Your task to perform on an android device: Turn off the flashlight Image 0: 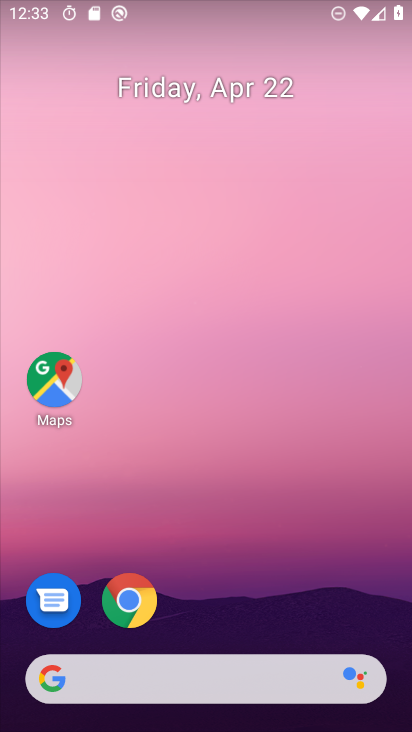
Step 0: drag from (219, 620) to (218, 47)
Your task to perform on an android device: Turn off the flashlight Image 1: 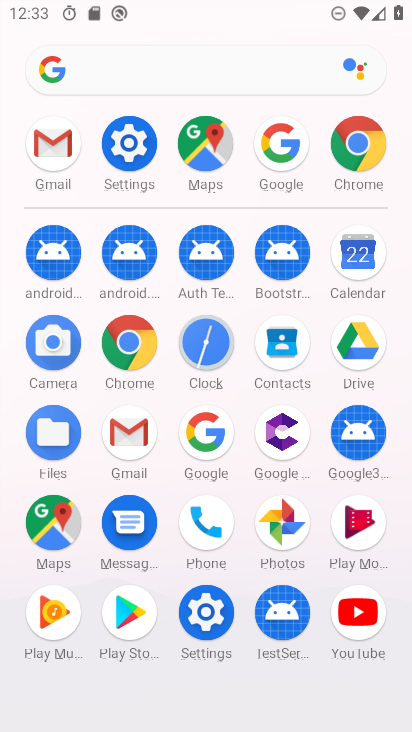
Step 1: click (129, 143)
Your task to perform on an android device: Turn off the flashlight Image 2: 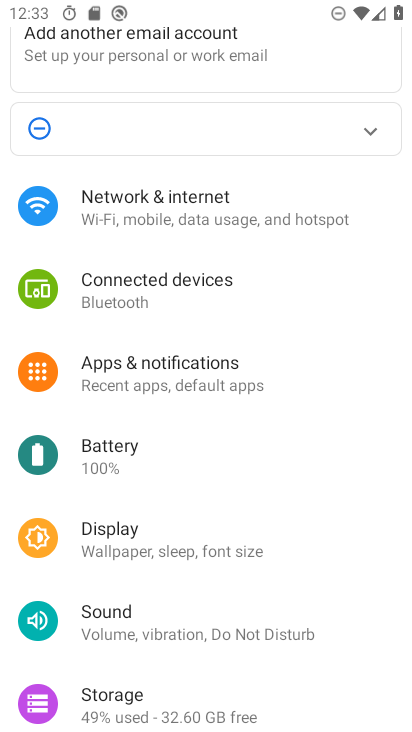
Step 2: click (209, 555)
Your task to perform on an android device: Turn off the flashlight Image 3: 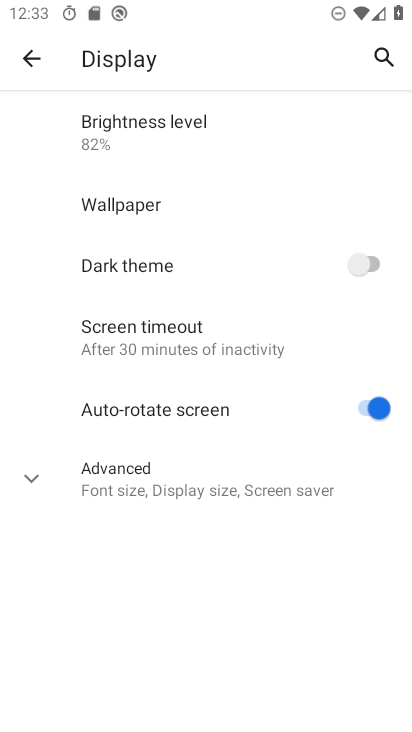
Step 3: click (200, 488)
Your task to perform on an android device: Turn off the flashlight Image 4: 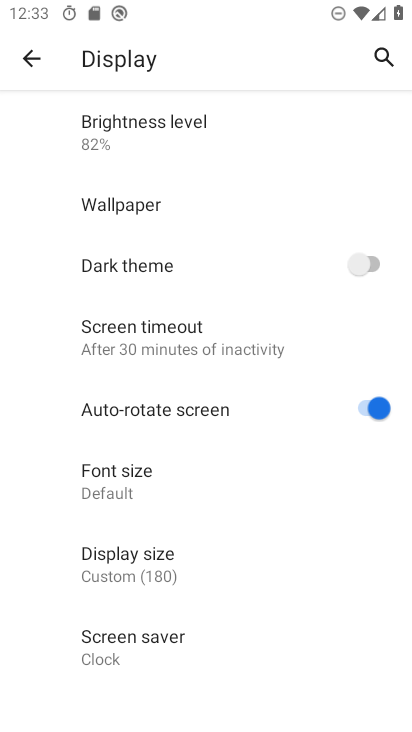
Step 4: drag from (200, 475) to (238, 346)
Your task to perform on an android device: Turn off the flashlight Image 5: 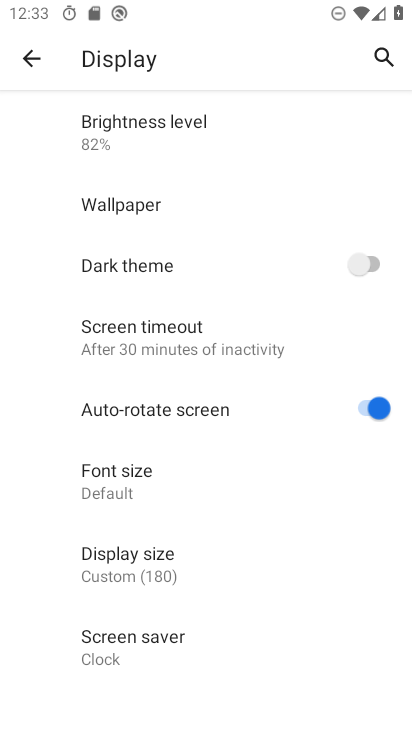
Step 5: drag from (251, 238) to (297, 377)
Your task to perform on an android device: Turn off the flashlight Image 6: 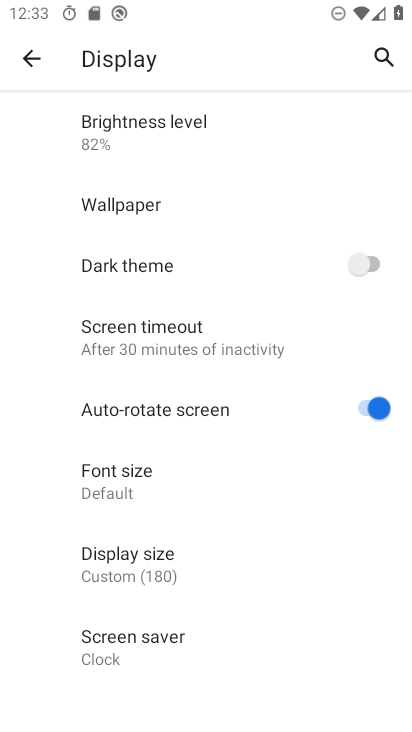
Step 6: click (246, 360)
Your task to perform on an android device: Turn off the flashlight Image 7: 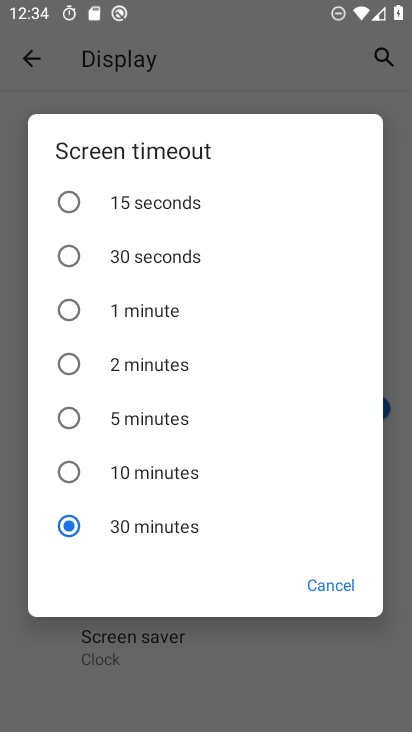
Step 7: drag from (235, 273) to (239, 389)
Your task to perform on an android device: Turn off the flashlight Image 8: 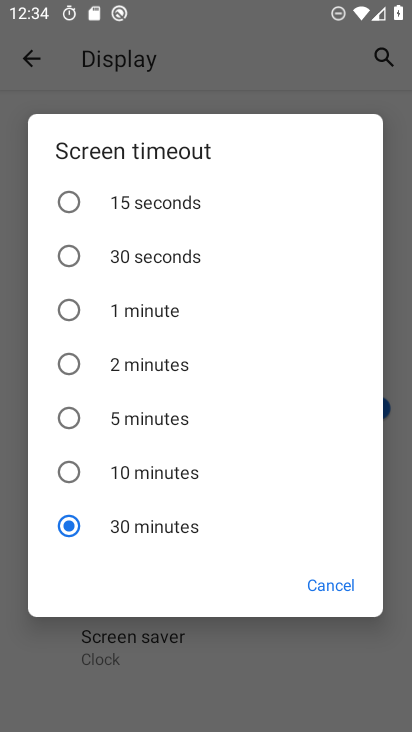
Step 8: click (339, 592)
Your task to perform on an android device: Turn off the flashlight Image 9: 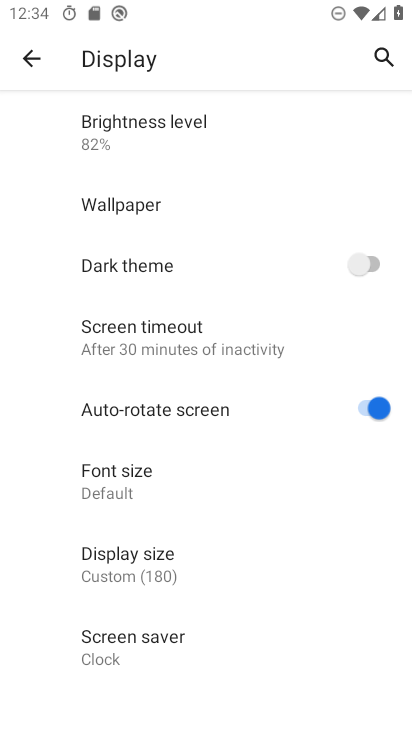
Step 9: press back button
Your task to perform on an android device: Turn off the flashlight Image 10: 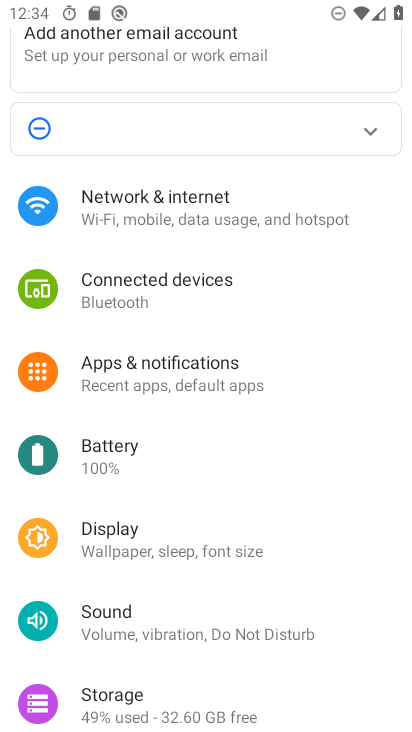
Step 10: drag from (176, 526) to (246, 366)
Your task to perform on an android device: Turn off the flashlight Image 11: 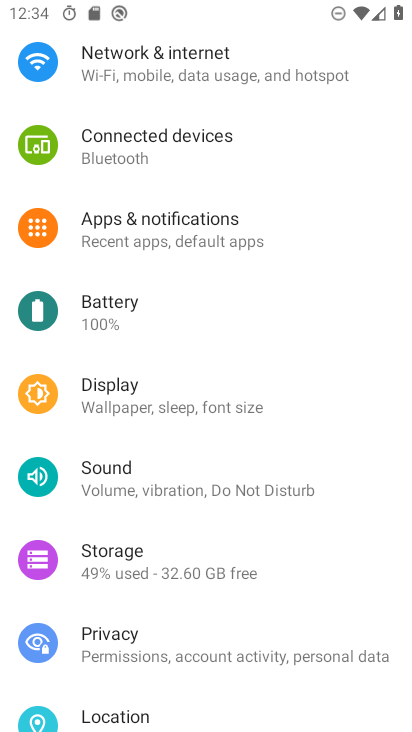
Step 11: drag from (169, 541) to (286, 352)
Your task to perform on an android device: Turn off the flashlight Image 12: 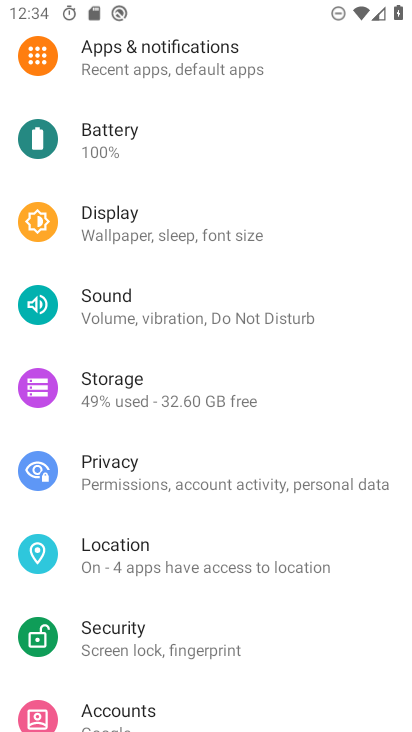
Step 12: drag from (203, 540) to (264, 401)
Your task to perform on an android device: Turn off the flashlight Image 13: 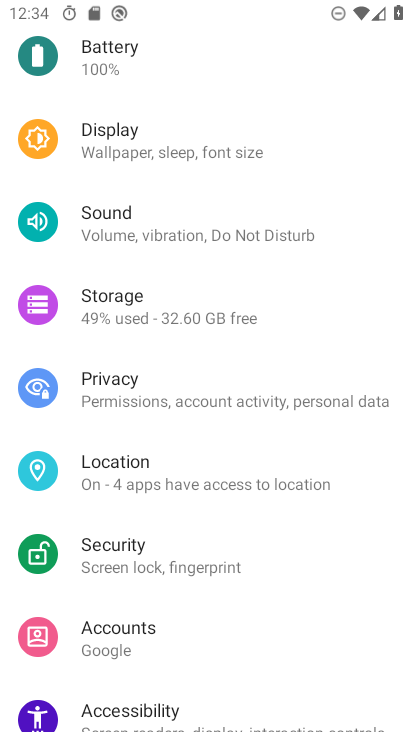
Step 13: drag from (206, 619) to (280, 472)
Your task to perform on an android device: Turn off the flashlight Image 14: 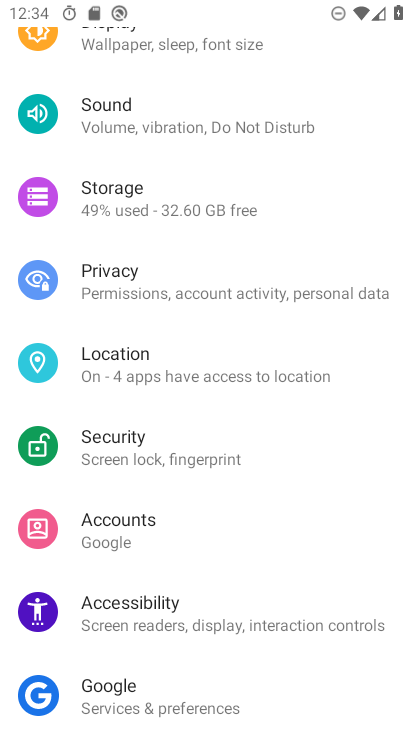
Step 14: drag from (225, 554) to (278, 447)
Your task to perform on an android device: Turn off the flashlight Image 15: 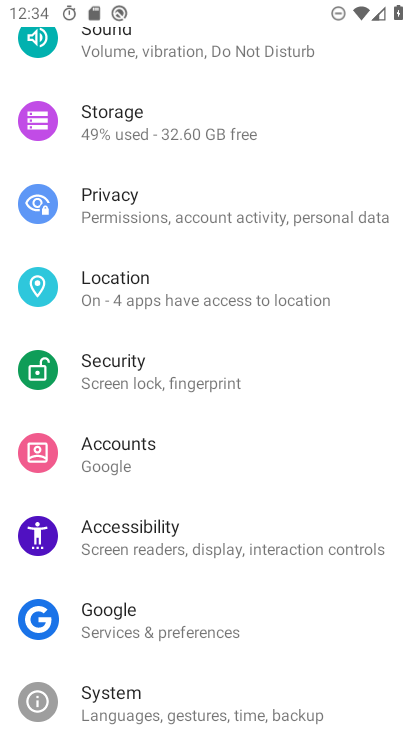
Step 15: click (210, 531)
Your task to perform on an android device: Turn off the flashlight Image 16: 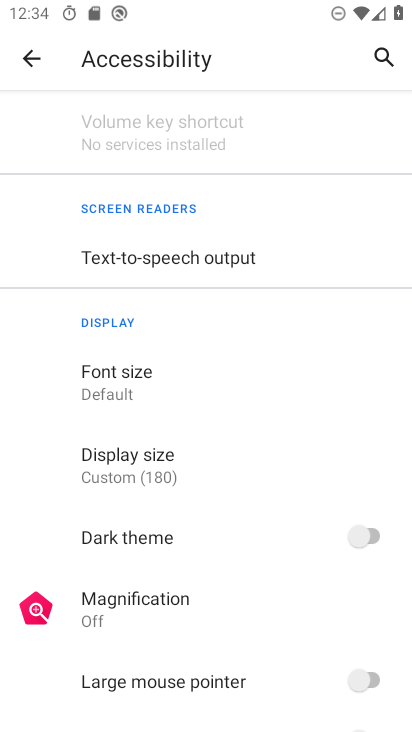
Step 16: task complete